Your task to perform on an android device: change the clock display to analog Image 0: 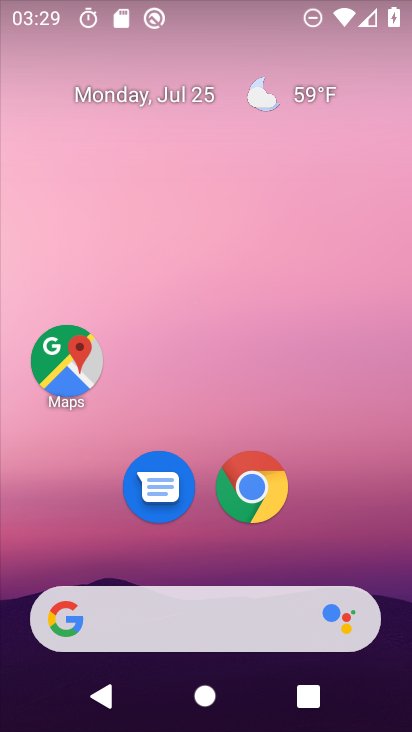
Step 0: drag from (78, 517) to (158, 14)
Your task to perform on an android device: change the clock display to analog Image 1: 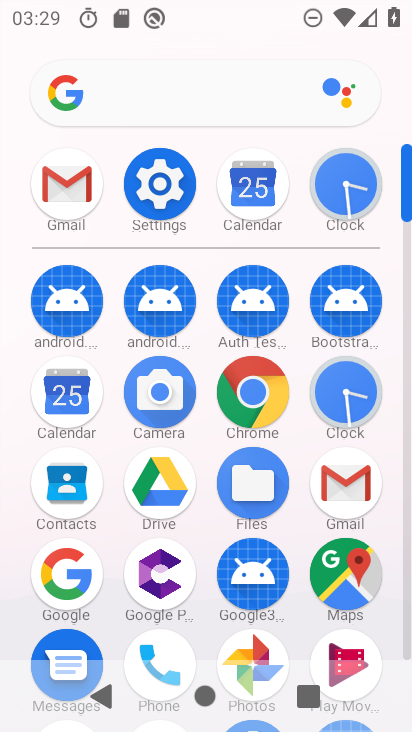
Step 1: click (353, 186)
Your task to perform on an android device: change the clock display to analog Image 2: 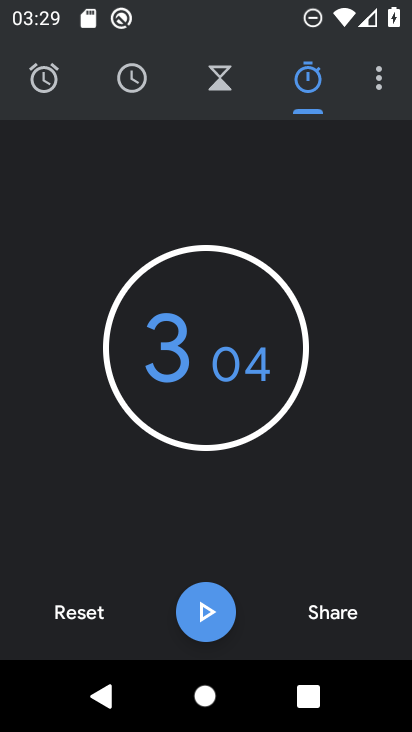
Step 2: click (381, 76)
Your task to perform on an android device: change the clock display to analog Image 3: 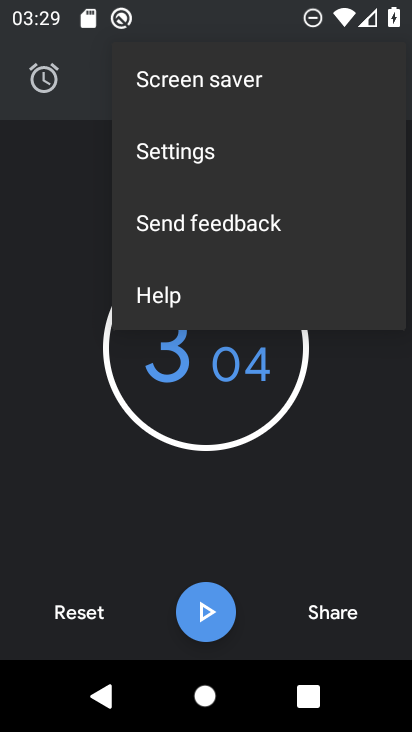
Step 3: click (226, 147)
Your task to perform on an android device: change the clock display to analog Image 4: 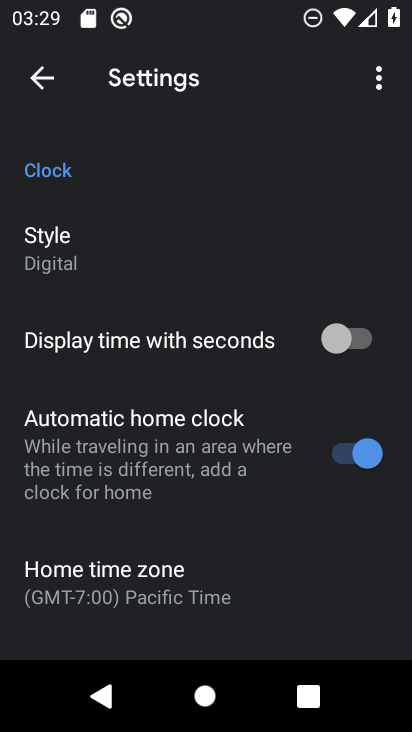
Step 4: click (96, 250)
Your task to perform on an android device: change the clock display to analog Image 5: 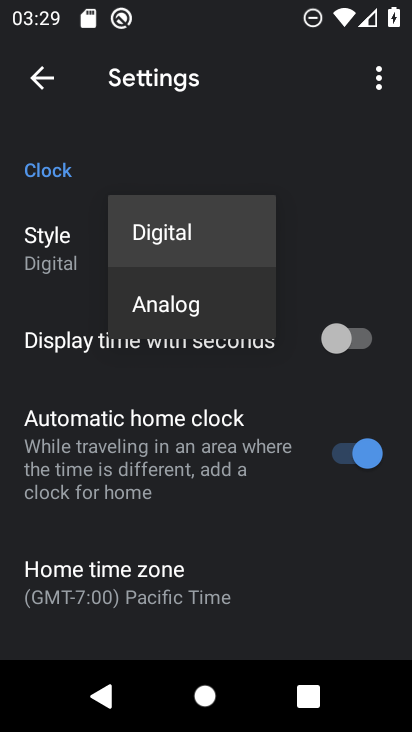
Step 5: click (173, 311)
Your task to perform on an android device: change the clock display to analog Image 6: 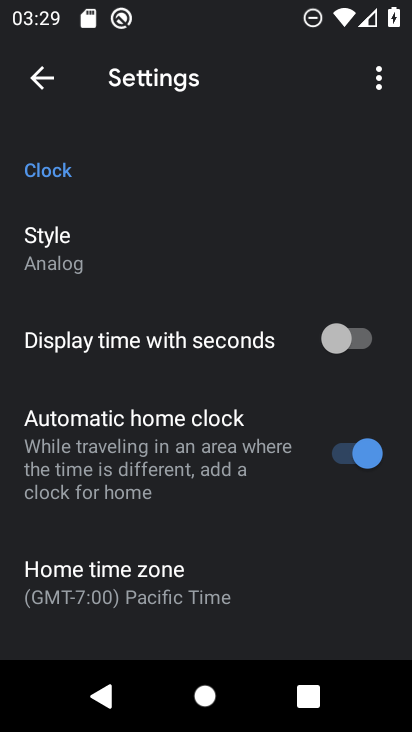
Step 6: task complete